Your task to perform on an android device: Open my contact list Image 0: 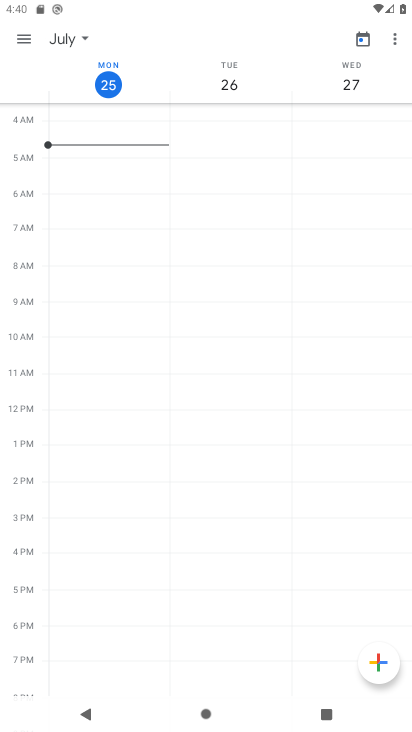
Step 0: press home button
Your task to perform on an android device: Open my contact list Image 1: 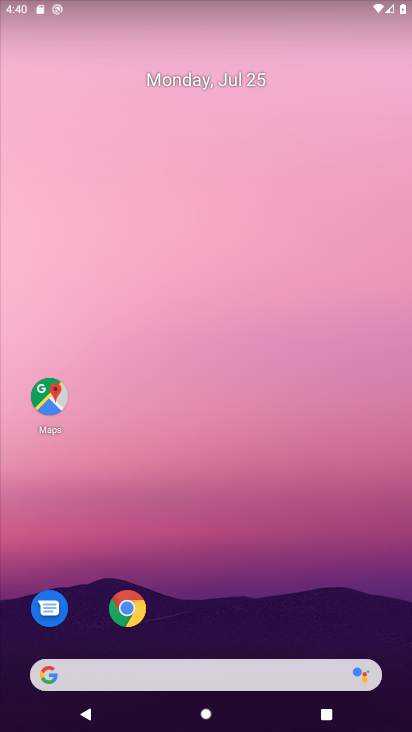
Step 1: drag from (214, 638) to (269, 15)
Your task to perform on an android device: Open my contact list Image 2: 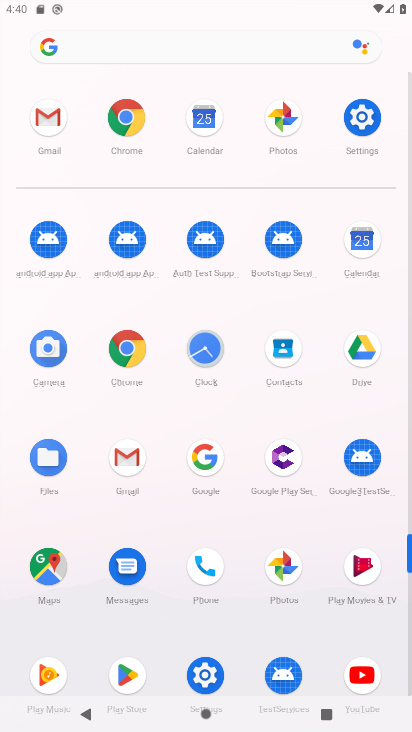
Step 2: click (277, 342)
Your task to perform on an android device: Open my contact list Image 3: 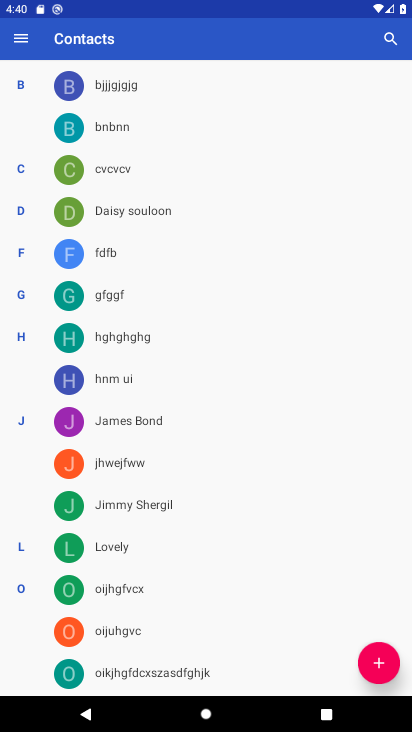
Step 3: task complete